Your task to perform on an android device: Go to internet settings Image 0: 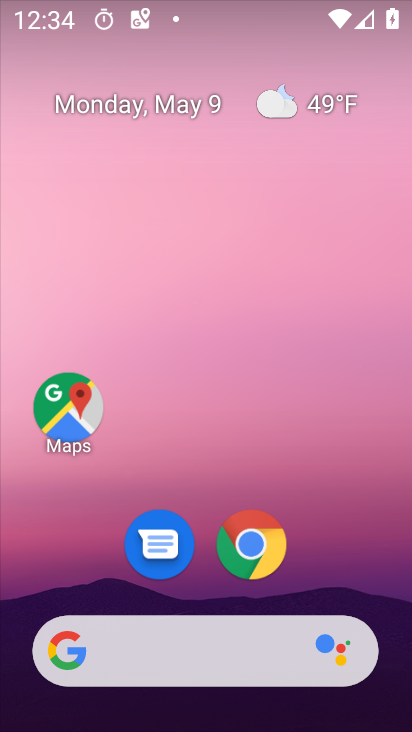
Step 0: drag from (291, 580) to (276, 9)
Your task to perform on an android device: Go to internet settings Image 1: 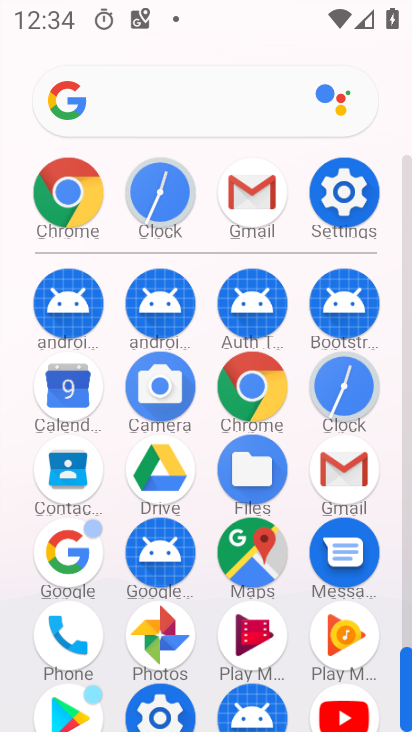
Step 1: click (334, 206)
Your task to perform on an android device: Go to internet settings Image 2: 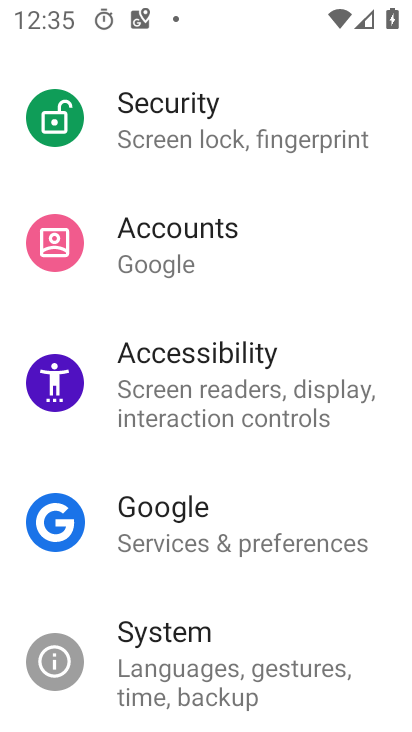
Step 2: drag from (252, 239) to (274, 727)
Your task to perform on an android device: Go to internet settings Image 3: 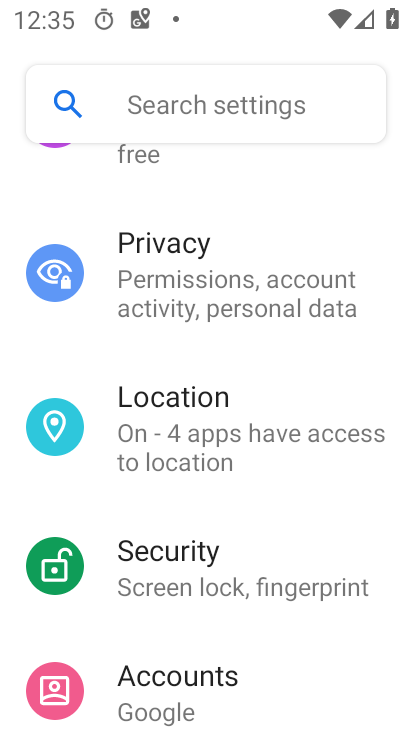
Step 3: drag from (173, 162) to (228, 712)
Your task to perform on an android device: Go to internet settings Image 4: 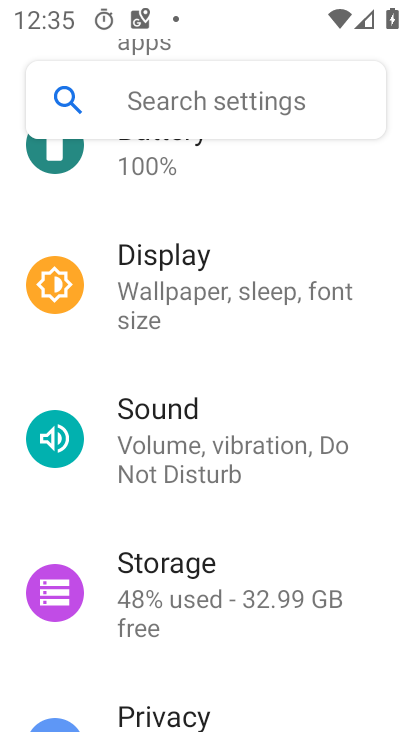
Step 4: drag from (272, 285) to (252, 695)
Your task to perform on an android device: Go to internet settings Image 5: 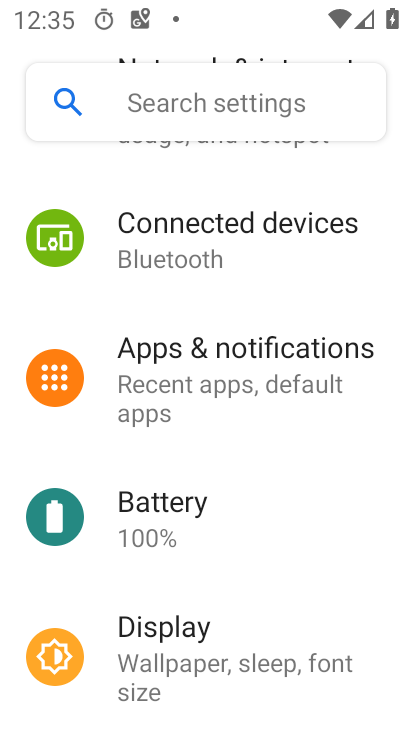
Step 5: drag from (281, 309) to (283, 731)
Your task to perform on an android device: Go to internet settings Image 6: 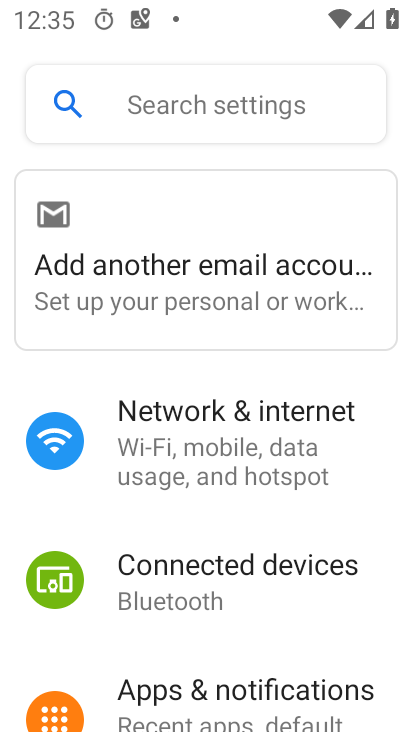
Step 6: click (273, 440)
Your task to perform on an android device: Go to internet settings Image 7: 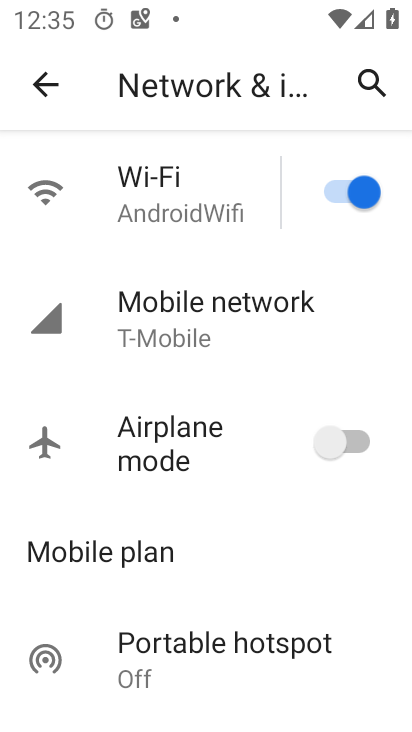
Step 7: click (252, 328)
Your task to perform on an android device: Go to internet settings Image 8: 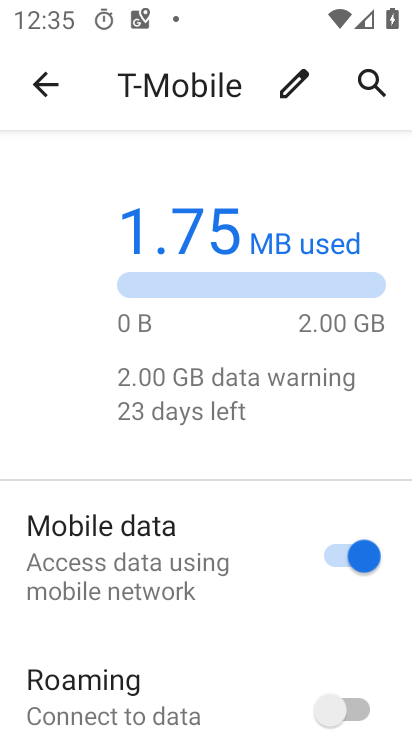
Step 8: task complete